Your task to perform on an android device: Turn off the flashlight Image 0: 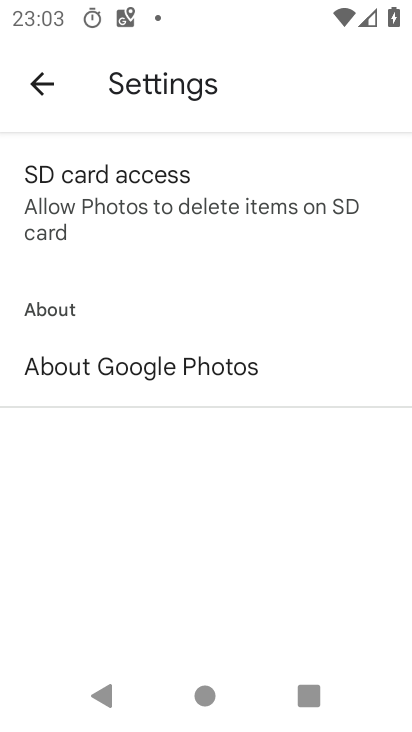
Step 0: task complete